Your task to perform on an android device: open a new tab in the chrome app Image 0: 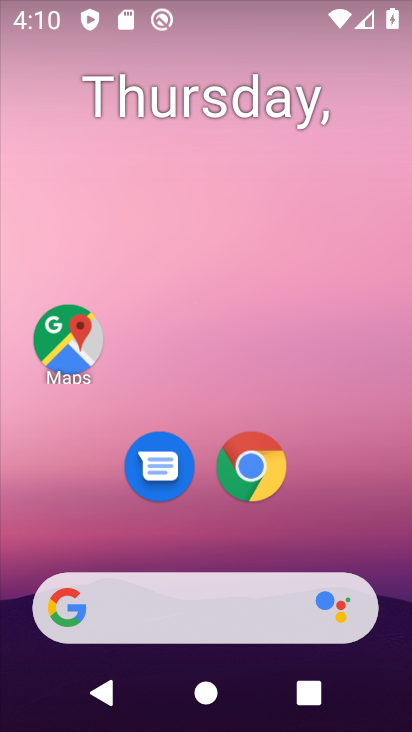
Step 0: click (250, 457)
Your task to perform on an android device: open a new tab in the chrome app Image 1: 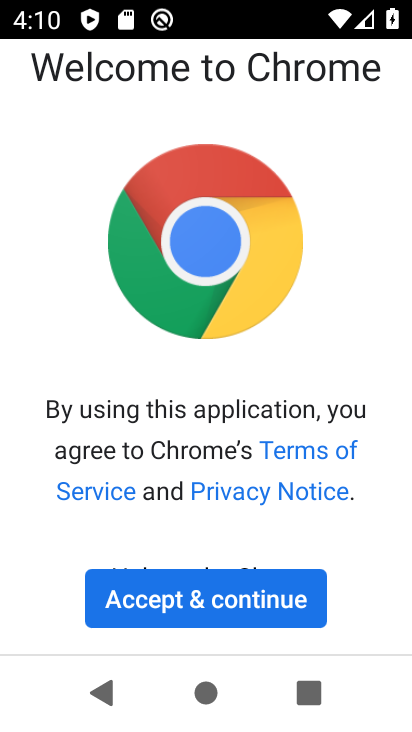
Step 1: click (191, 593)
Your task to perform on an android device: open a new tab in the chrome app Image 2: 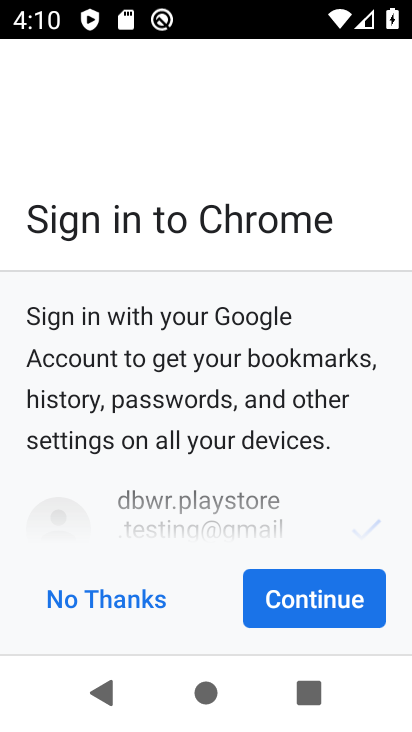
Step 2: click (315, 593)
Your task to perform on an android device: open a new tab in the chrome app Image 3: 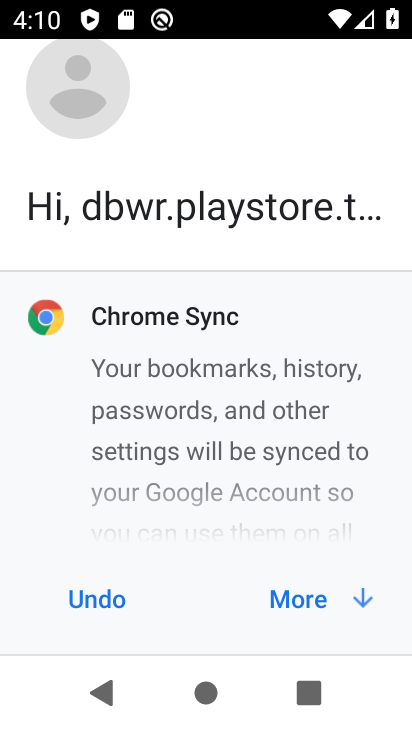
Step 3: click (315, 593)
Your task to perform on an android device: open a new tab in the chrome app Image 4: 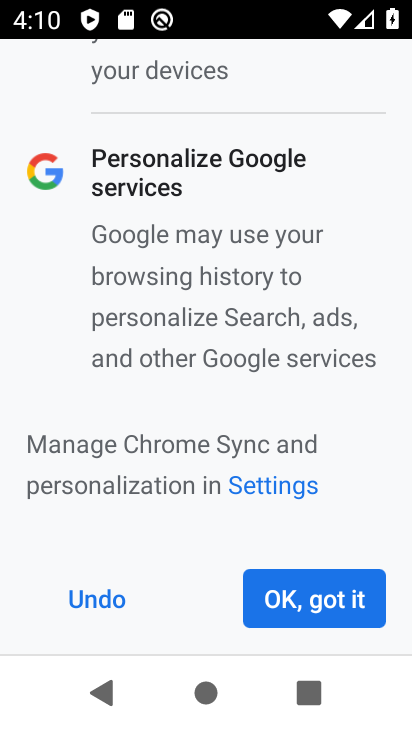
Step 4: click (315, 593)
Your task to perform on an android device: open a new tab in the chrome app Image 5: 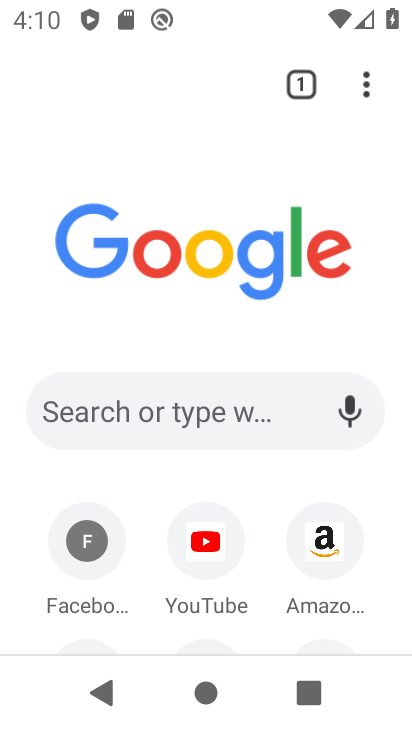
Step 5: click (299, 84)
Your task to perform on an android device: open a new tab in the chrome app Image 6: 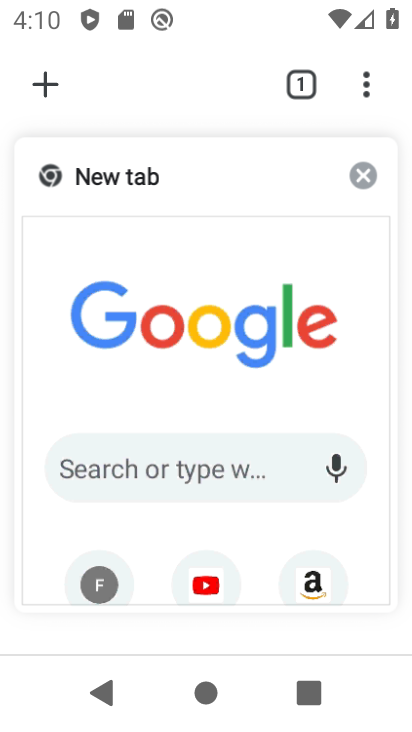
Step 6: click (49, 83)
Your task to perform on an android device: open a new tab in the chrome app Image 7: 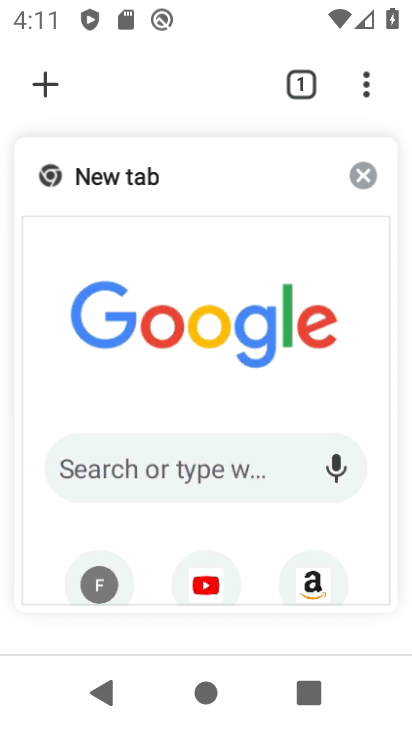
Step 7: click (51, 80)
Your task to perform on an android device: open a new tab in the chrome app Image 8: 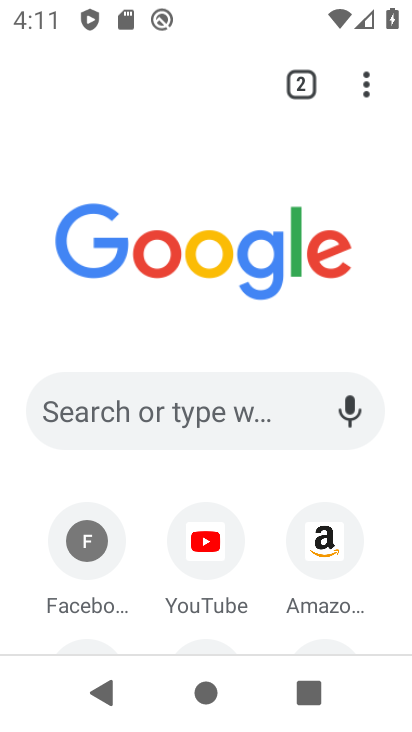
Step 8: task complete